Your task to perform on an android device: Is it going to rain tomorrow? Image 0: 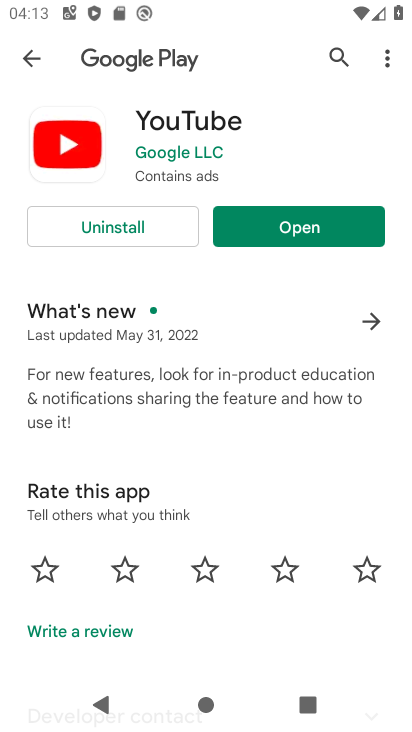
Step 0: press home button
Your task to perform on an android device: Is it going to rain tomorrow? Image 1: 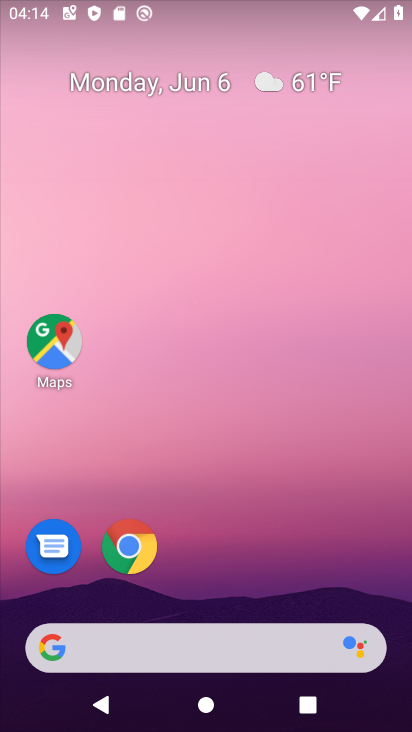
Step 1: click (50, 644)
Your task to perform on an android device: Is it going to rain tomorrow? Image 2: 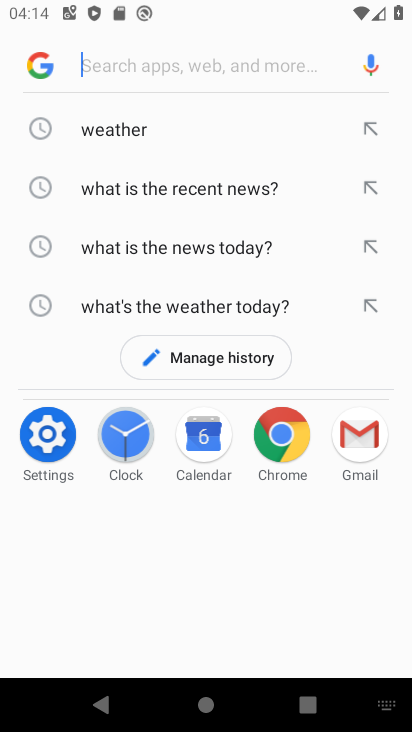
Step 2: type "rain tomrrow"
Your task to perform on an android device: Is it going to rain tomorrow? Image 3: 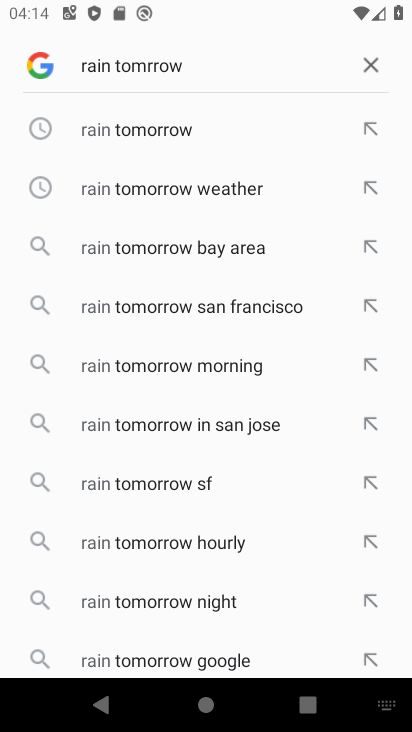
Step 3: click (128, 133)
Your task to perform on an android device: Is it going to rain tomorrow? Image 4: 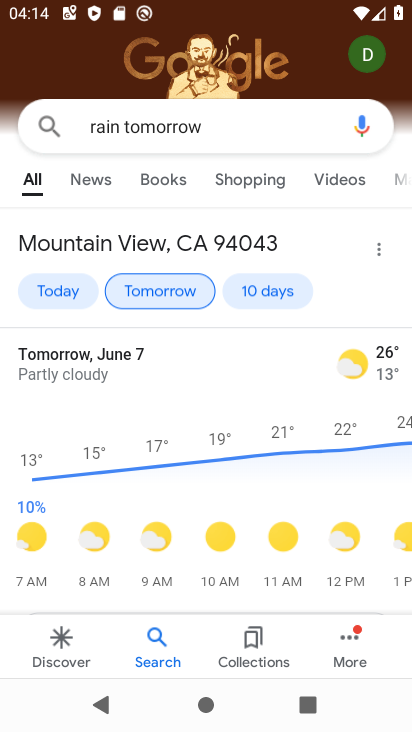
Step 4: task complete